Your task to perform on an android device: Play the last video I watched on Youtube Image 0: 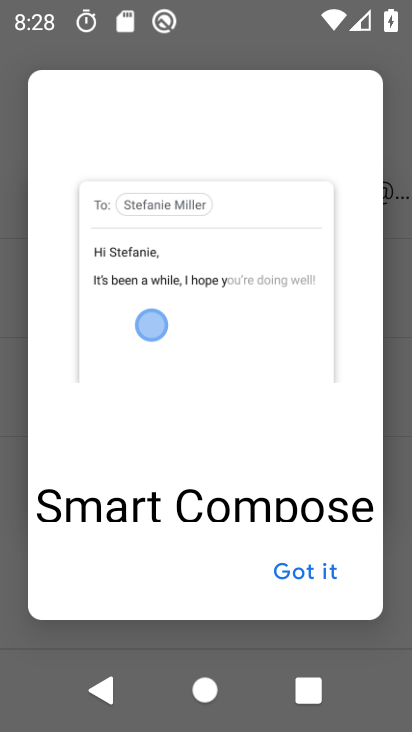
Step 0: press home button
Your task to perform on an android device: Play the last video I watched on Youtube Image 1: 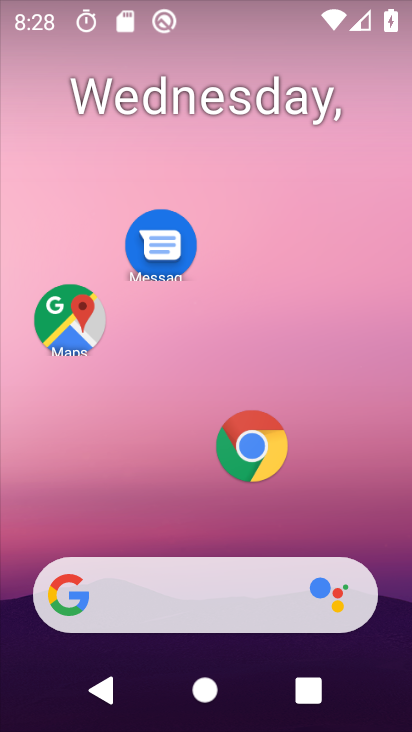
Step 1: drag from (203, 527) to (212, 30)
Your task to perform on an android device: Play the last video I watched on Youtube Image 2: 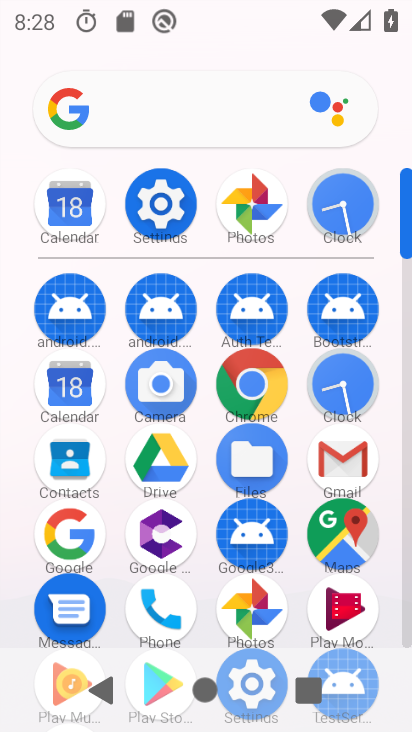
Step 2: drag from (293, 572) to (288, 162)
Your task to perform on an android device: Play the last video I watched on Youtube Image 3: 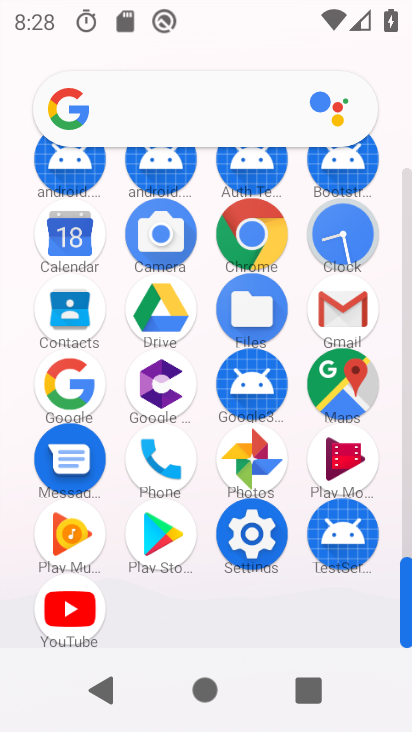
Step 3: click (66, 603)
Your task to perform on an android device: Play the last video I watched on Youtube Image 4: 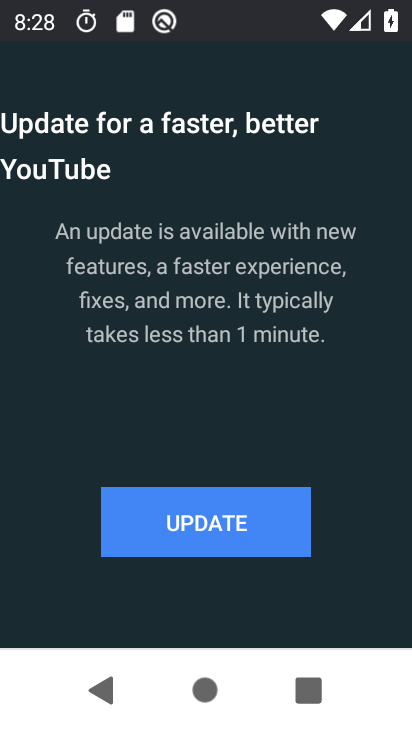
Step 4: click (212, 516)
Your task to perform on an android device: Play the last video I watched on Youtube Image 5: 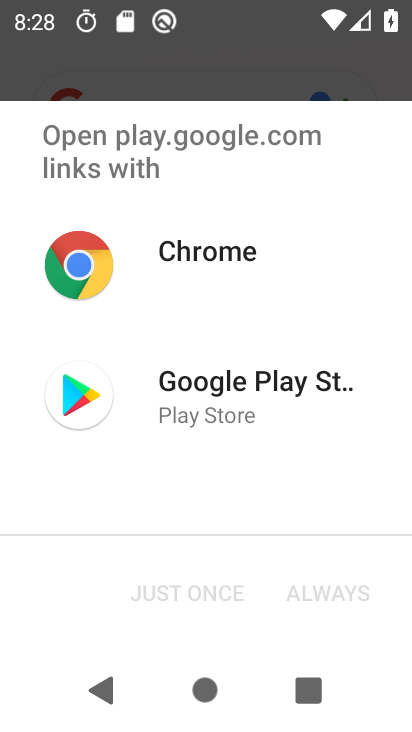
Step 5: click (128, 385)
Your task to perform on an android device: Play the last video I watched on Youtube Image 6: 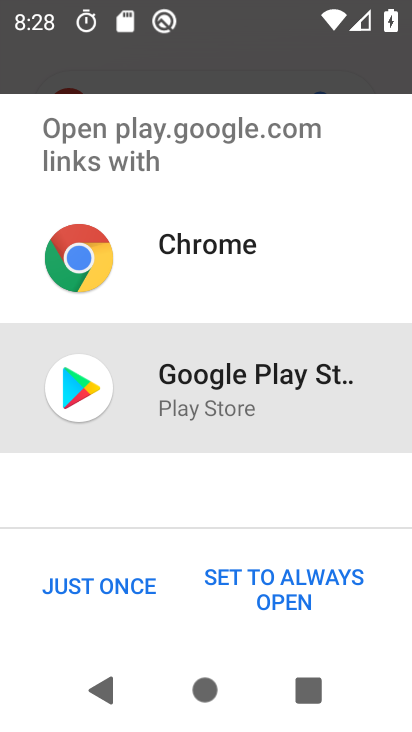
Step 6: click (92, 585)
Your task to perform on an android device: Play the last video I watched on Youtube Image 7: 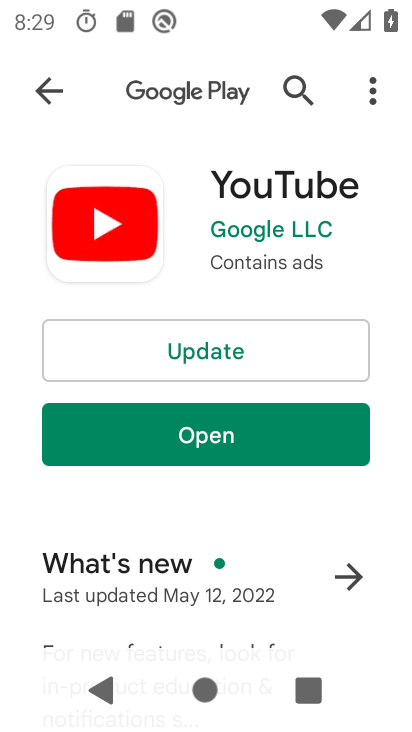
Step 7: click (212, 442)
Your task to perform on an android device: Play the last video I watched on Youtube Image 8: 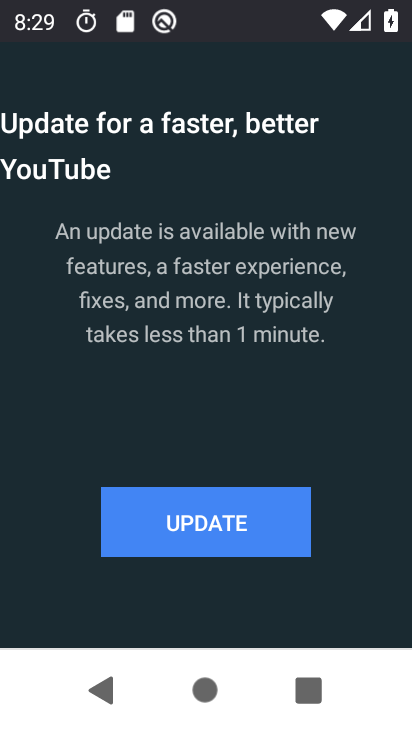
Step 8: click (213, 525)
Your task to perform on an android device: Play the last video I watched on Youtube Image 9: 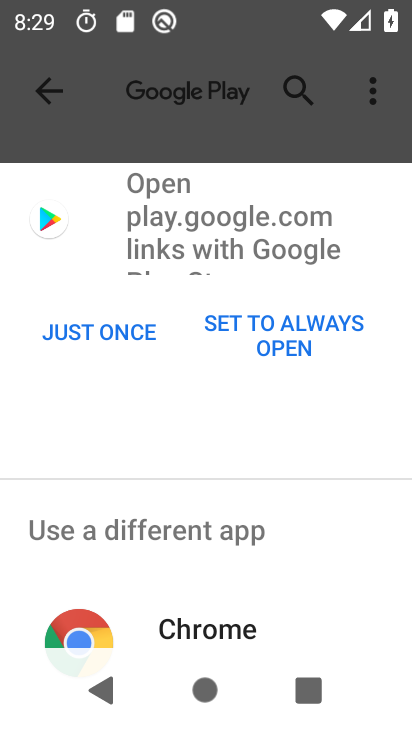
Step 9: click (107, 336)
Your task to perform on an android device: Play the last video I watched on Youtube Image 10: 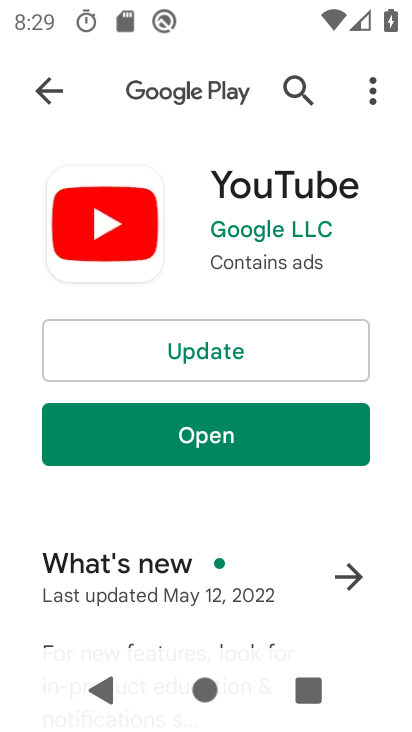
Step 10: click (199, 363)
Your task to perform on an android device: Play the last video I watched on Youtube Image 11: 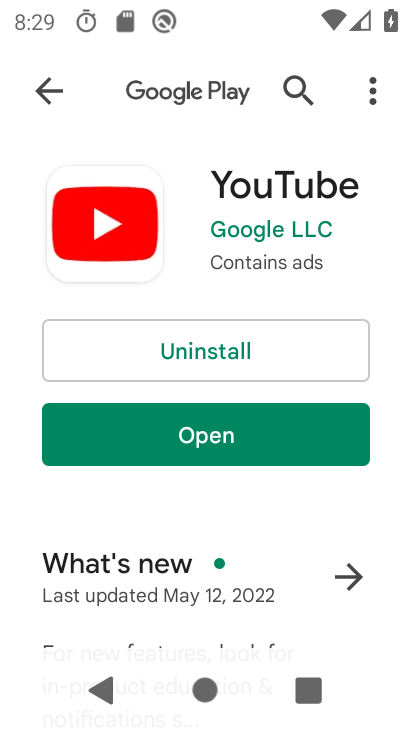
Step 11: click (212, 442)
Your task to perform on an android device: Play the last video I watched on Youtube Image 12: 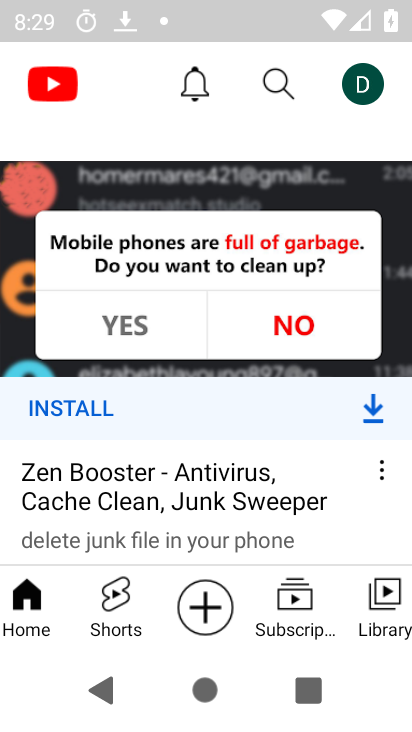
Step 12: click (382, 590)
Your task to perform on an android device: Play the last video I watched on Youtube Image 13: 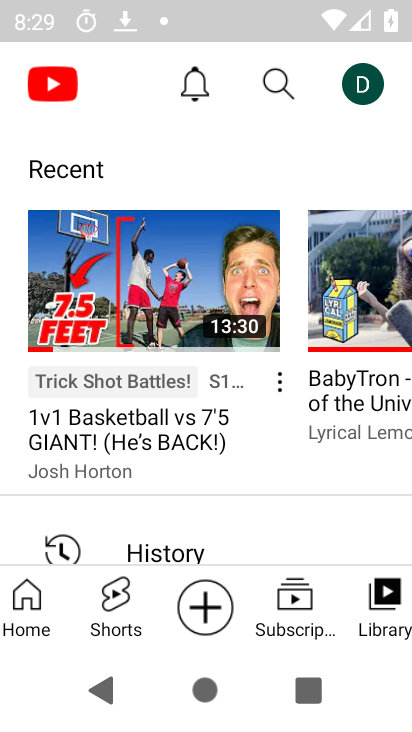
Step 13: click (155, 304)
Your task to perform on an android device: Play the last video I watched on Youtube Image 14: 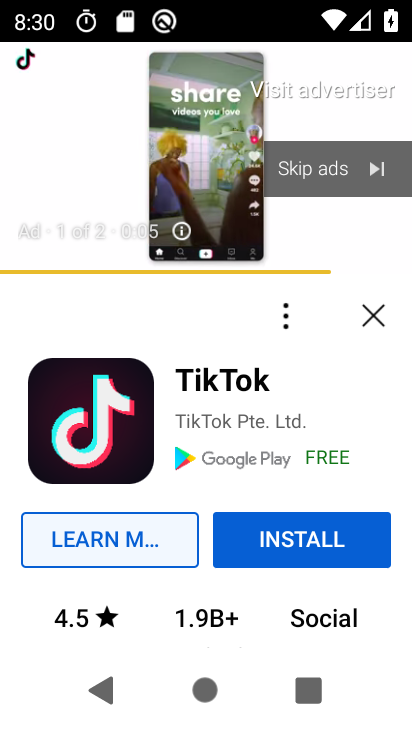
Step 14: click (340, 165)
Your task to perform on an android device: Play the last video I watched on Youtube Image 15: 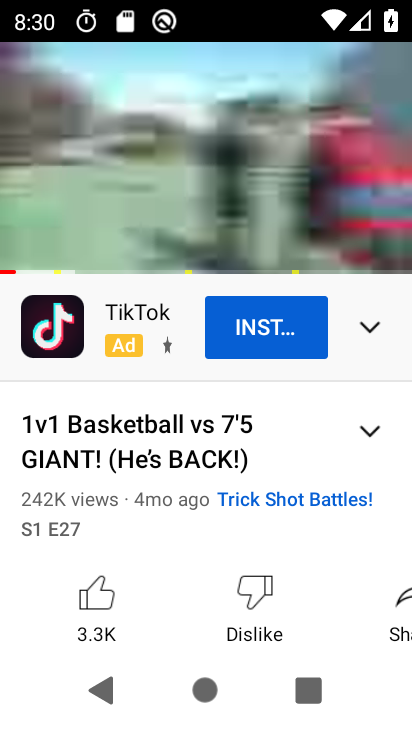
Step 15: task complete